Your task to perform on an android device: open wifi settings Image 0: 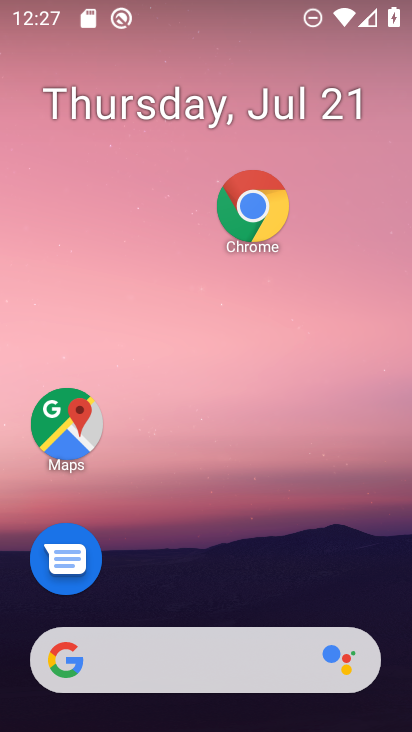
Step 0: drag from (171, 640) to (177, 120)
Your task to perform on an android device: open wifi settings Image 1: 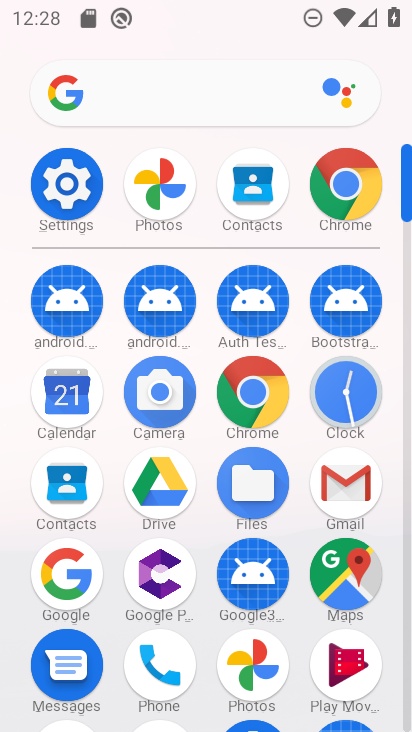
Step 1: click (78, 215)
Your task to perform on an android device: open wifi settings Image 2: 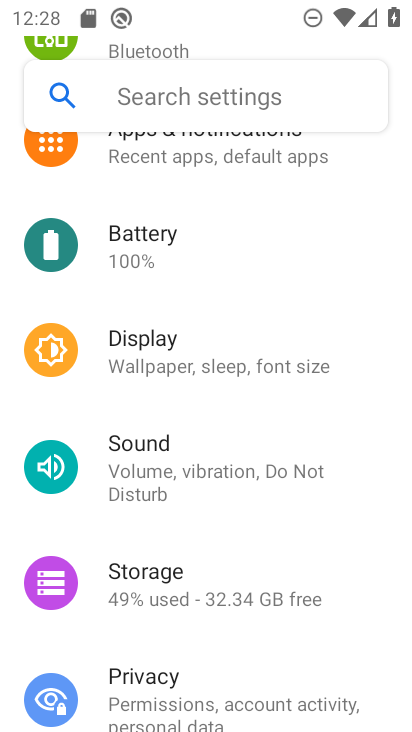
Step 2: drag from (145, 265) to (217, 715)
Your task to perform on an android device: open wifi settings Image 3: 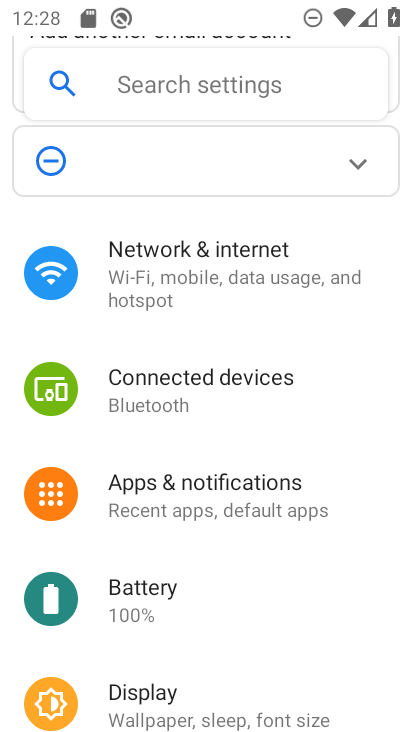
Step 3: click (243, 299)
Your task to perform on an android device: open wifi settings Image 4: 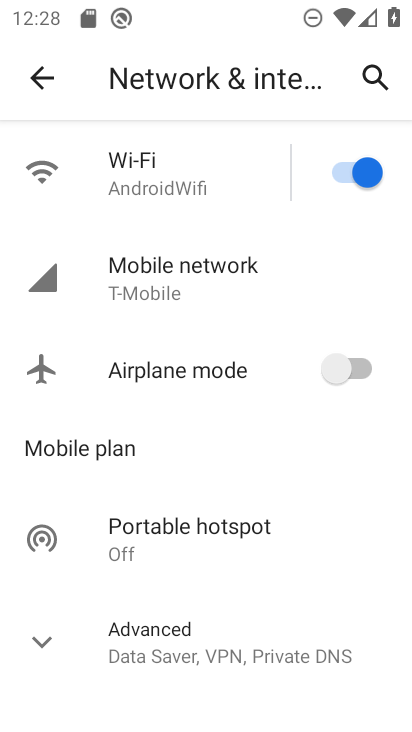
Step 4: click (213, 174)
Your task to perform on an android device: open wifi settings Image 5: 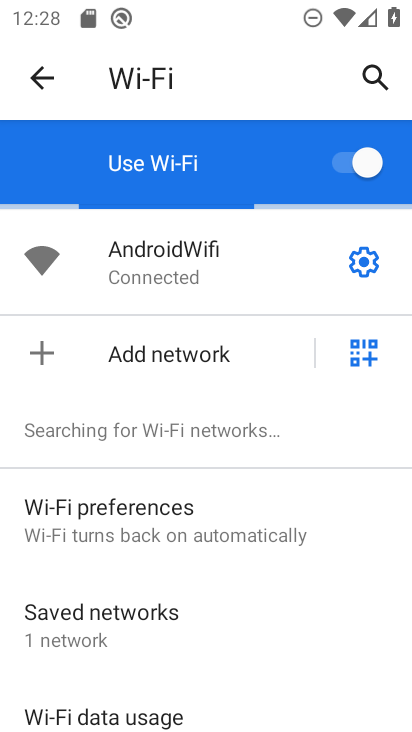
Step 5: task complete